Your task to perform on an android device: open app "YouTube Kids" Image 0: 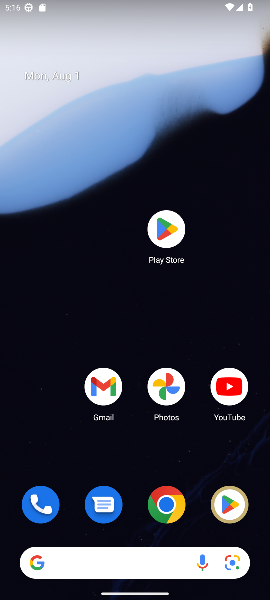
Step 0: click (175, 230)
Your task to perform on an android device: open app "YouTube Kids" Image 1: 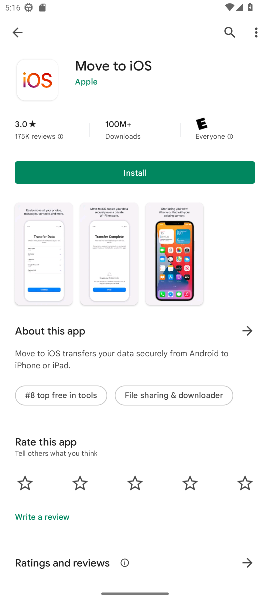
Step 1: click (224, 32)
Your task to perform on an android device: open app "YouTube Kids" Image 2: 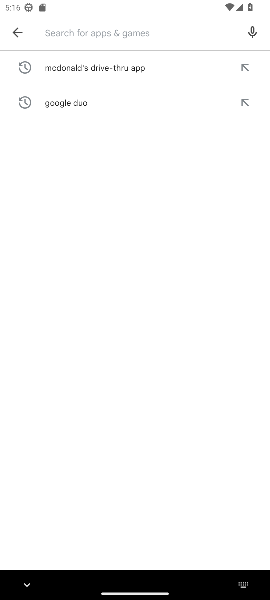
Step 2: type "YouTube Kids"
Your task to perform on an android device: open app "YouTube Kids" Image 3: 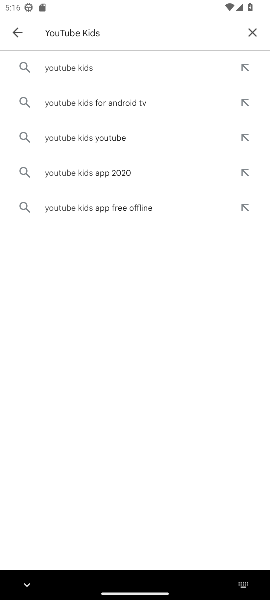
Step 3: click (79, 68)
Your task to perform on an android device: open app "YouTube Kids" Image 4: 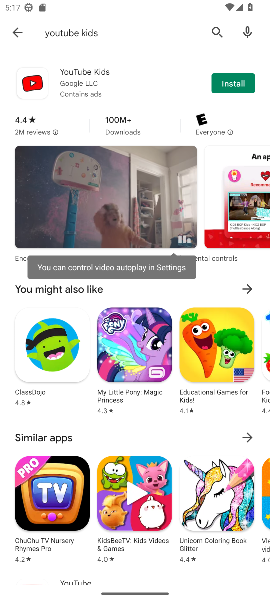
Step 4: task complete